Your task to perform on an android device: Go to accessibility settings Image 0: 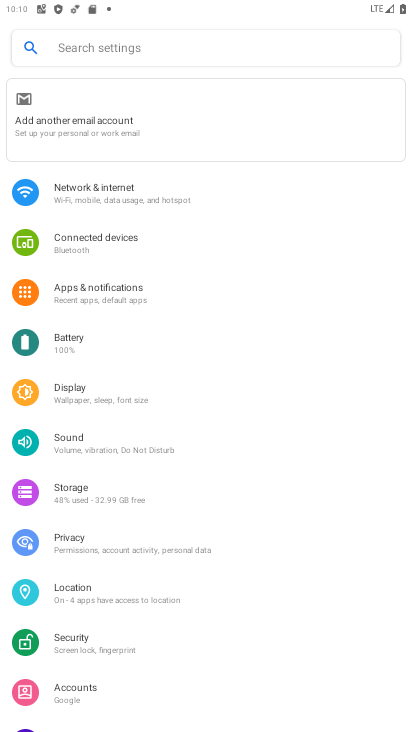
Step 0: drag from (162, 585) to (144, 244)
Your task to perform on an android device: Go to accessibility settings Image 1: 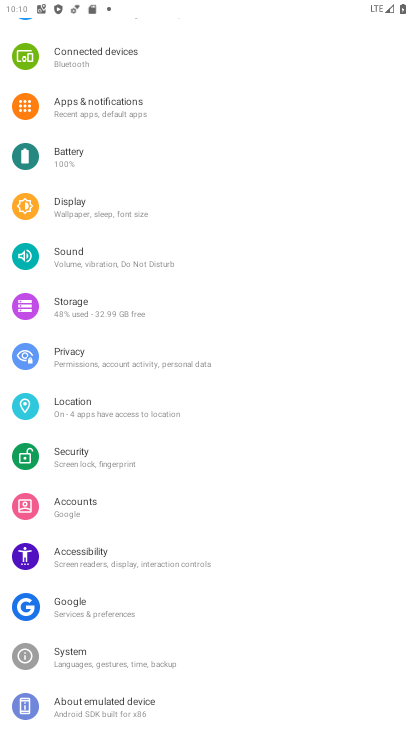
Step 1: click (98, 549)
Your task to perform on an android device: Go to accessibility settings Image 2: 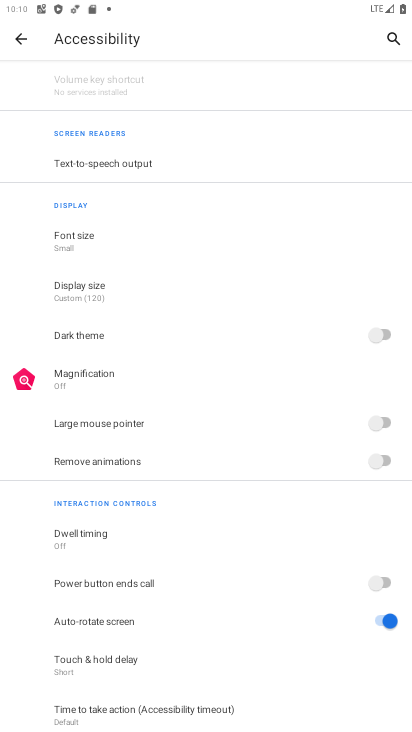
Step 2: task complete